Your task to perform on an android device: change text size in settings app Image 0: 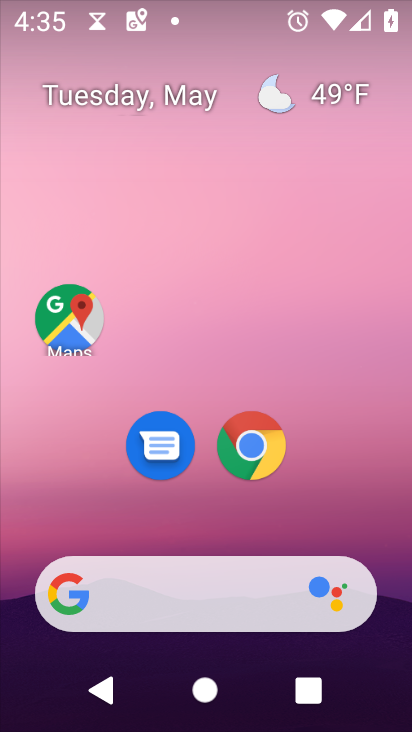
Step 0: drag from (345, 568) to (345, 233)
Your task to perform on an android device: change text size in settings app Image 1: 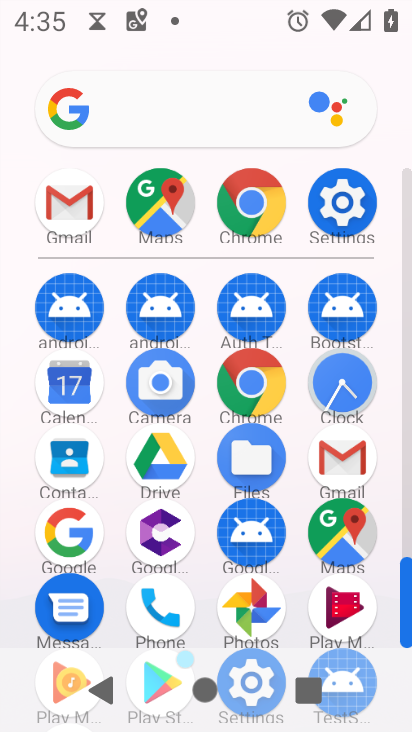
Step 1: click (340, 203)
Your task to perform on an android device: change text size in settings app Image 2: 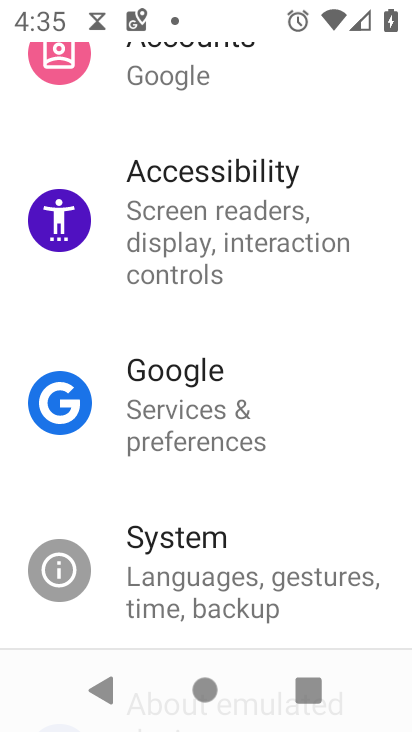
Step 2: drag from (265, 232) to (245, 670)
Your task to perform on an android device: change text size in settings app Image 3: 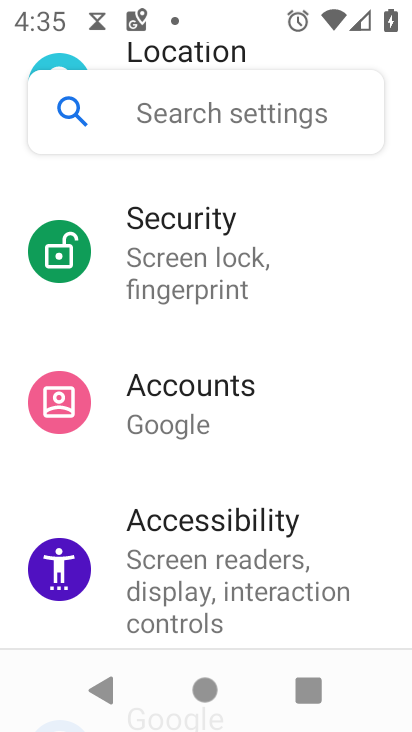
Step 3: drag from (271, 304) to (267, 621)
Your task to perform on an android device: change text size in settings app Image 4: 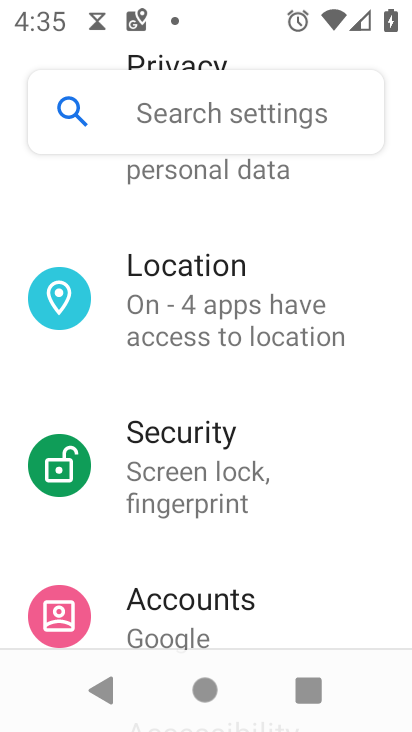
Step 4: drag from (270, 268) to (271, 661)
Your task to perform on an android device: change text size in settings app Image 5: 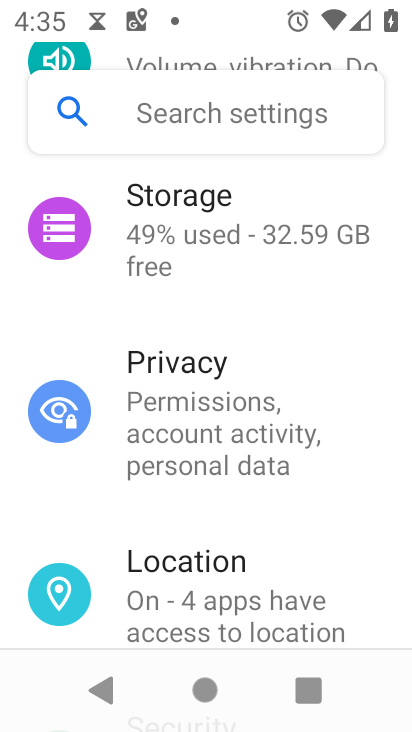
Step 5: drag from (261, 341) to (275, 660)
Your task to perform on an android device: change text size in settings app Image 6: 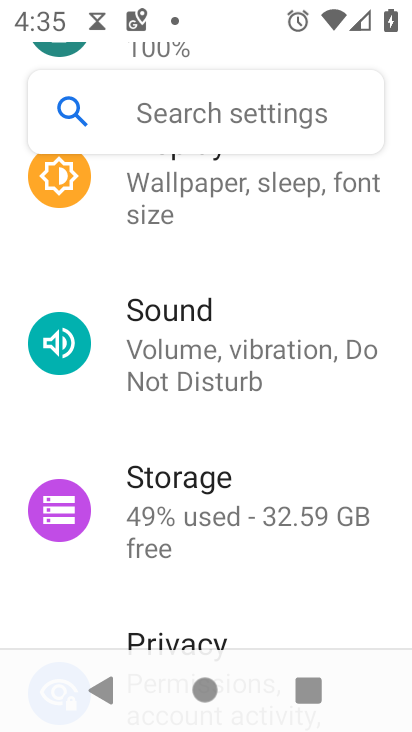
Step 6: drag from (238, 304) to (289, 164)
Your task to perform on an android device: change text size in settings app Image 7: 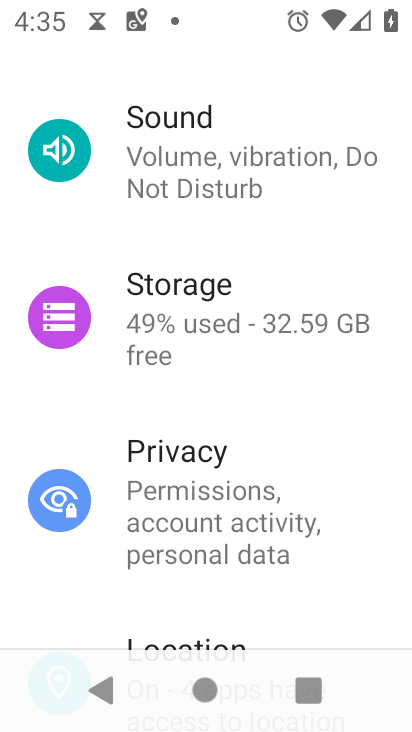
Step 7: drag from (233, 559) to (266, 216)
Your task to perform on an android device: change text size in settings app Image 8: 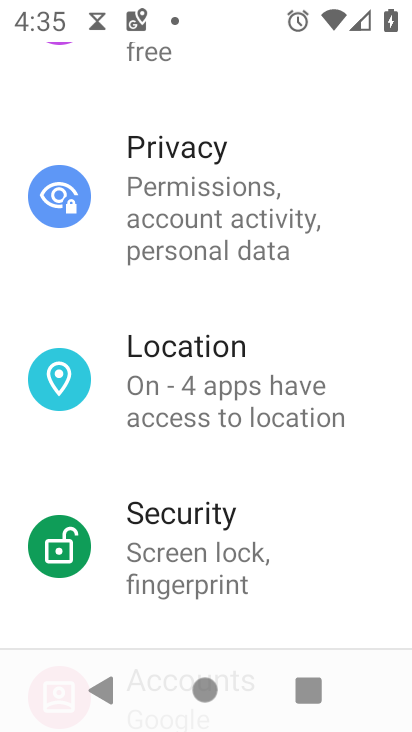
Step 8: drag from (297, 639) to (277, 225)
Your task to perform on an android device: change text size in settings app Image 9: 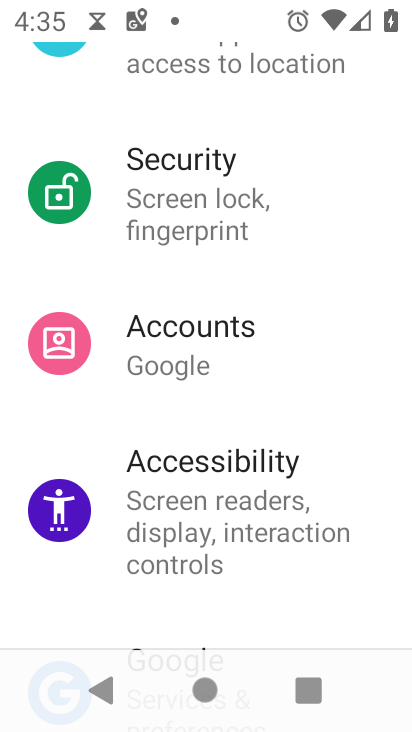
Step 9: drag from (252, 608) to (298, 257)
Your task to perform on an android device: change text size in settings app Image 10: 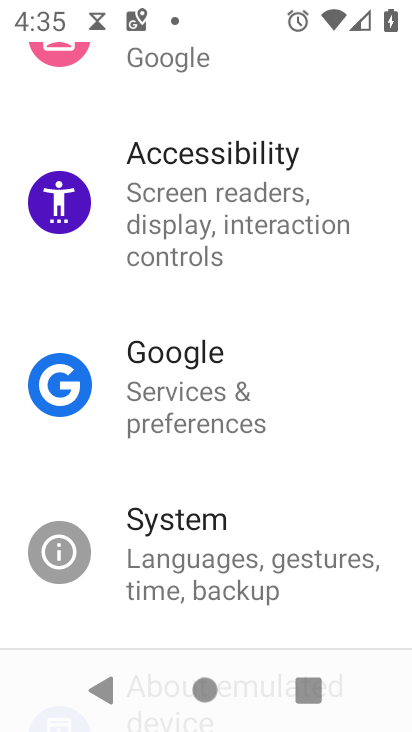
Step 10: drag from (229, 584) to (264, 231)
Your task to perform on an android device: change text size in settings app Image 11: 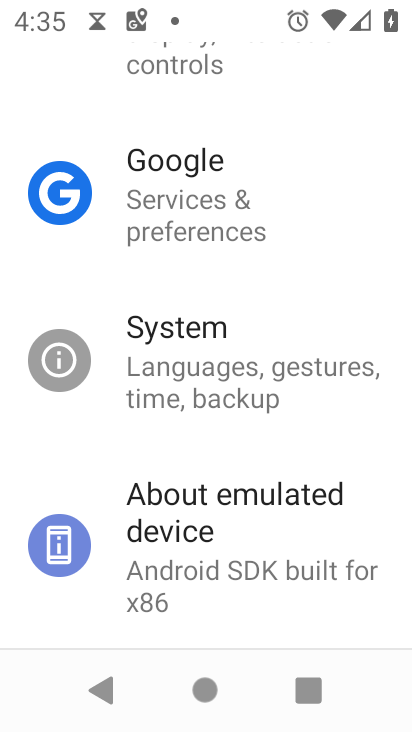
Step 11: click (233, 571)
Your task to perform on an android device: change text size in settings app Image 12: 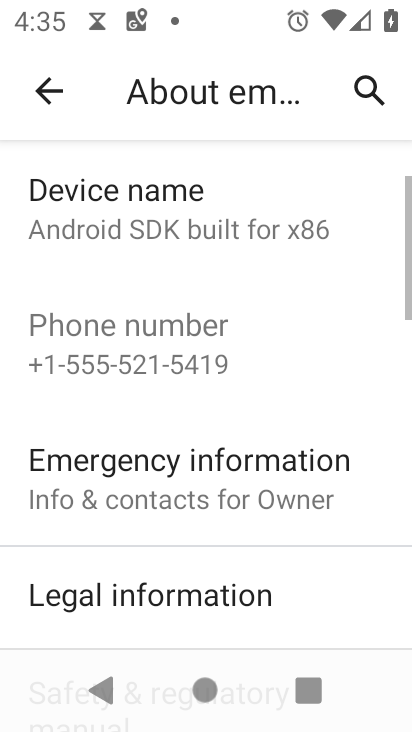
Step 12: press back button
Your task to perform on an android device: change text size in settings app Image 13: 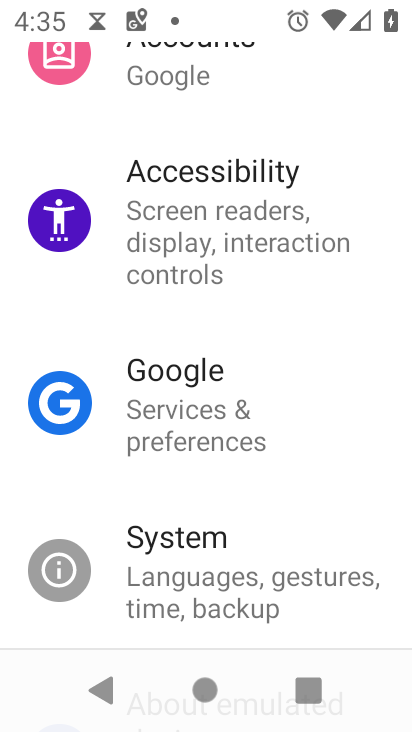
Step 13: click (263, 256)
Your task to perform on an android device: change text size in settings app Image 14: 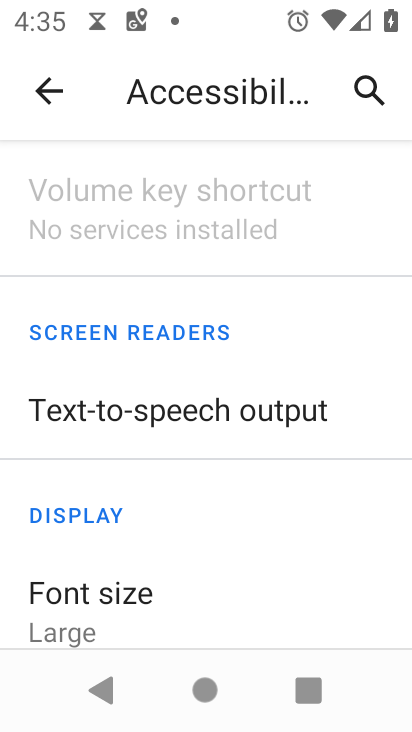
Step 14: click (170, 613)
Your task to perform on an android device: change text size in settings app Image 15: 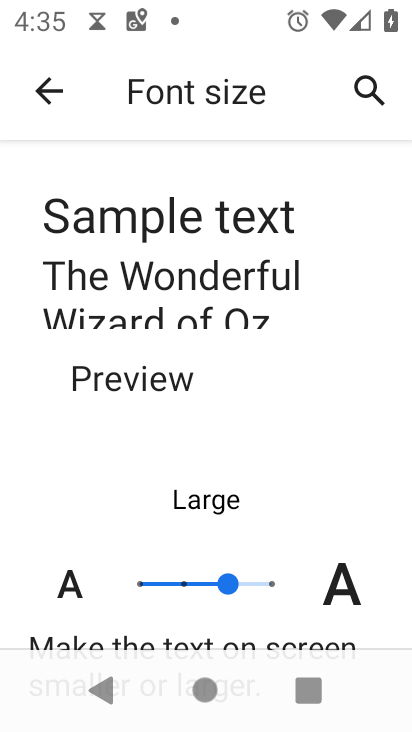
Step 15: click (183, 582)
Your task to perform on an android device: change text size in settings app Image 16: 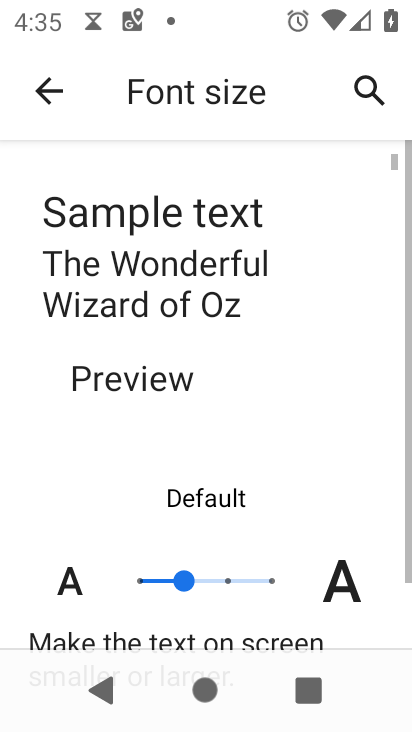
Step 16: task complete